Your task to perform on an android device: Open location settings Image 0: 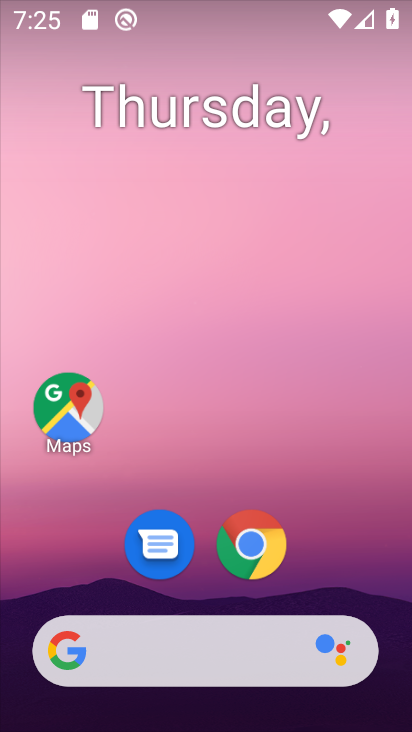
Step 0: drag from (321, 552) to (244, 115)
Your task to perform on an android device: Open location settings Image 1: 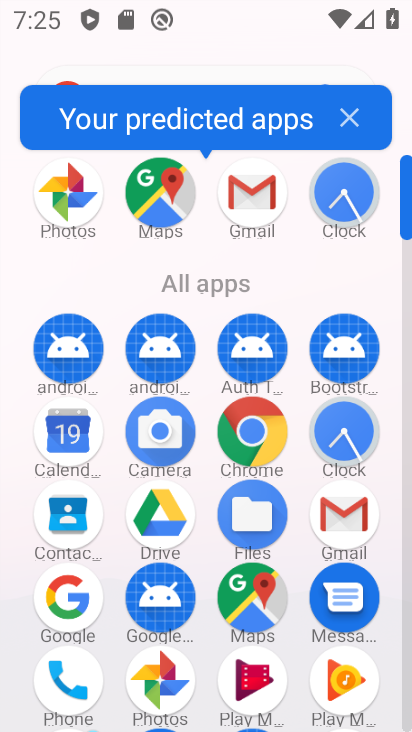
Step 1: drag from (207, 516) to (190, 290)
Your task to perform on an android device: Open location settings Image 2: 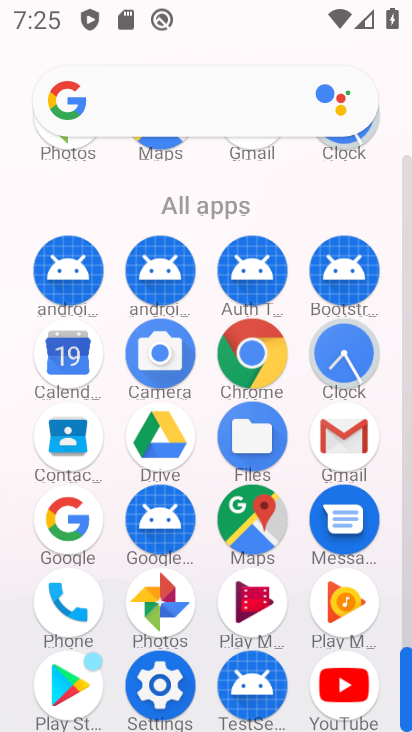
Step 2: click (162, 686)
Your task to perform on an android device: Open location settings Image 3: 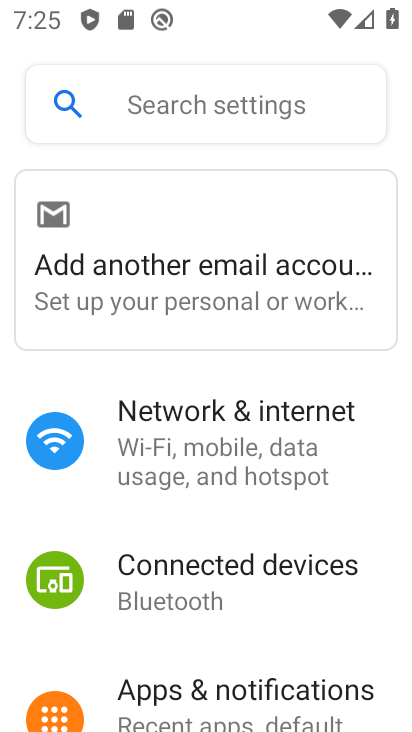
Step 3: drag from (209, 528) to (236, 424)
Your task to perform on an android device: Open location settings Image 4: 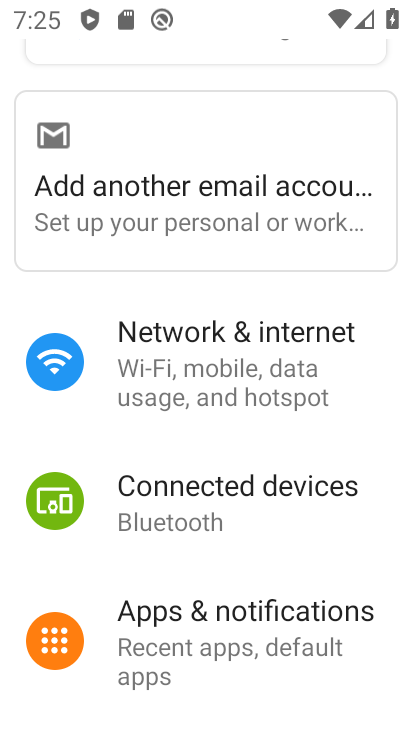
Step 4: drag from (213, 545) to (212, 439)
Your task to perform on an android device: Open location settings Image 5: 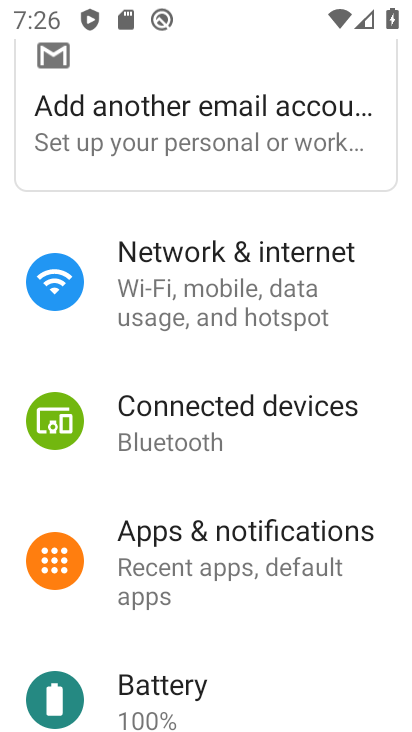
Step 5: drag from (193, 590) to (204, 473)
Your task to perform on an android device: Open location settings Image 6: 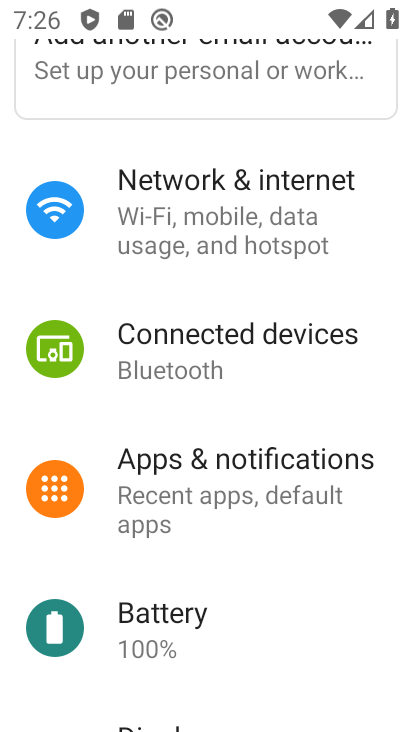
Step 6: drag from (190, 561) to (229, 390)
Your task to perform on an android device: Open location settings Image 7: 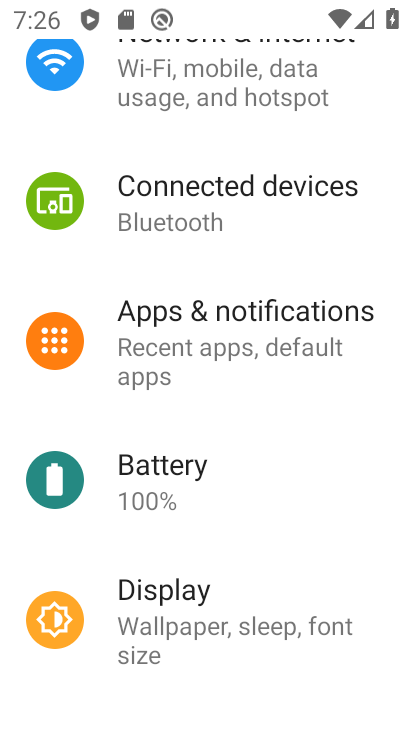
Step 7: drag from (166, 534) to (189, 364)
Your task to perform on an android device: Open location settings Image 8: 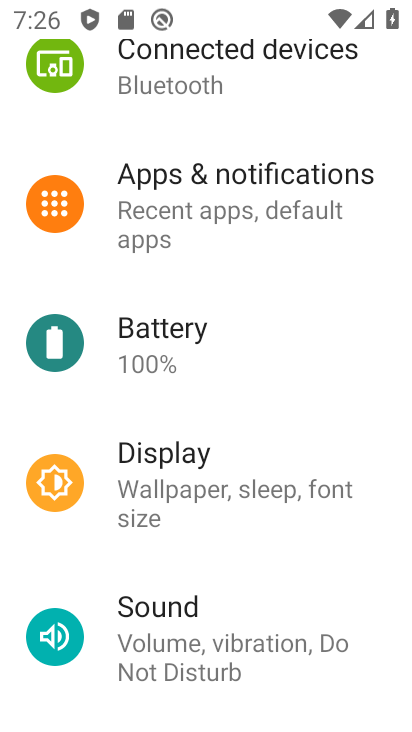
Step 8: drag from (183, 543) to (262, 363)
Your task to perform on an android device: Open location settings Image 9: 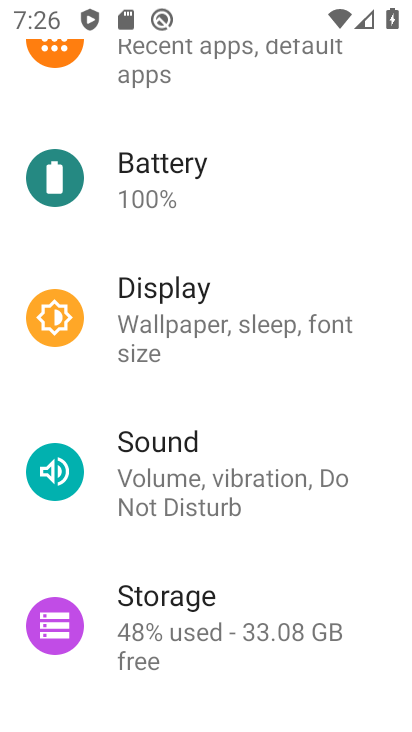
Step 9: drag from (161, 401) to (212, 284)
Your task to perform on an android device: Open location settings Image 10: 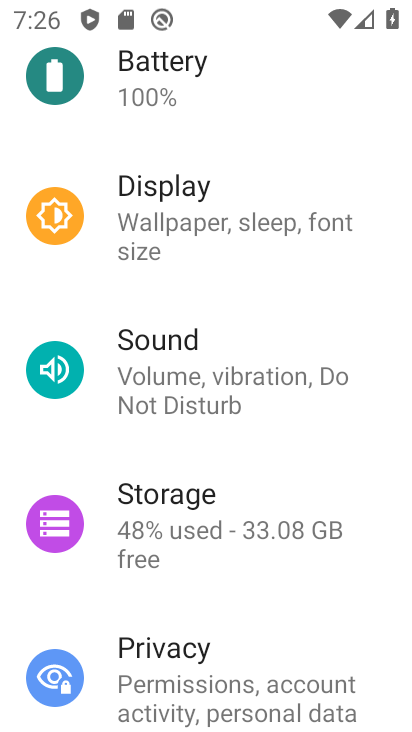
Step 10: drag from (159, 440) to (226, 303)
Your task to perform on an android device: Open location settings Image 11: 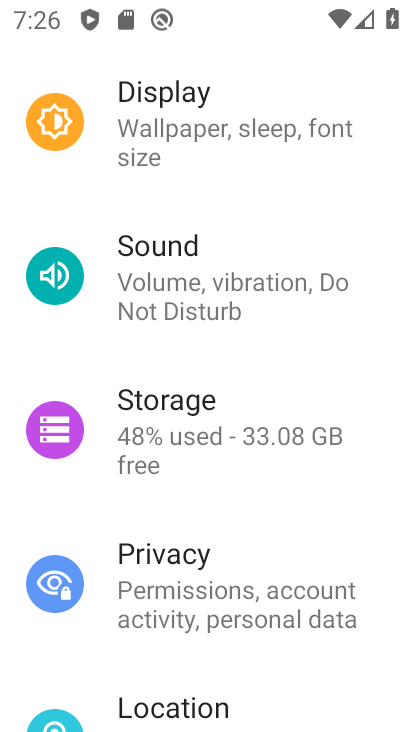
Step 11: drag from (160, 492) to (203, 380)
Your task to perform on an android device: Open location settings Image 12: 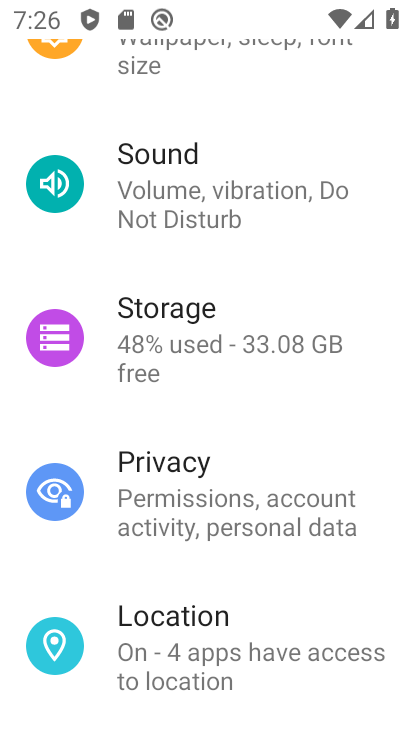
Step 12: drag from (176, 423) to (210, 310)
Your task to perform on an android device: Open location settings Image 13: 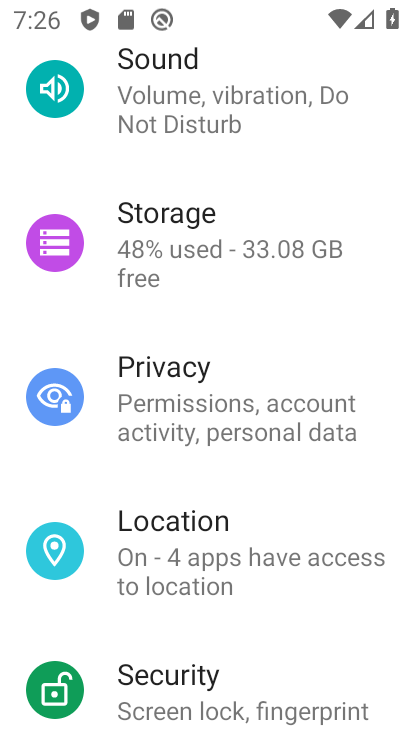
Step 13: click (202, 518)
Your task to perform on an android device: Open location settings Image 14: 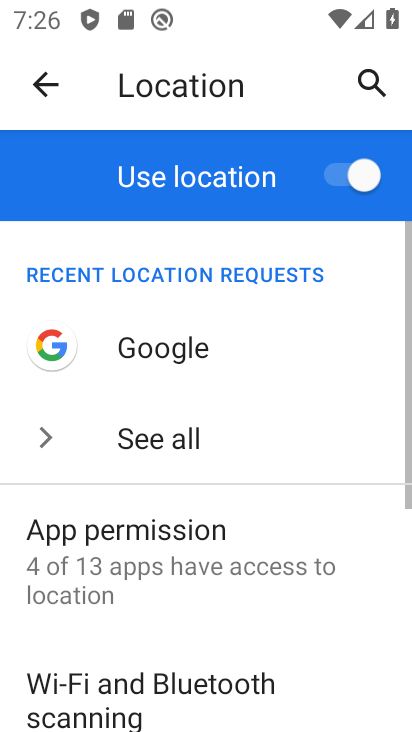
Step 14: task complete